Your task to perform on an android device: What's the latest video from GameXplain? Image 0: 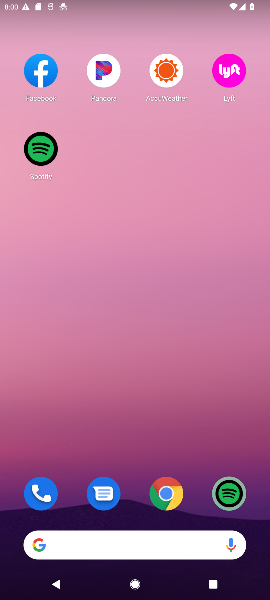
Step 0: drag from (131, 517) to (131, 68)
Your task to perform on an android device: What's the latest video from GameXplain? Image 1: 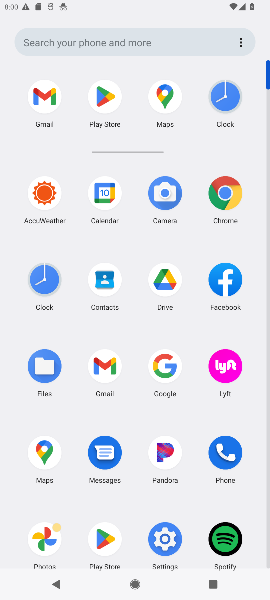
Step 1: click (109, 101)
Your task to perform on an android device: What's the latest video from GameXplain? Image 2: 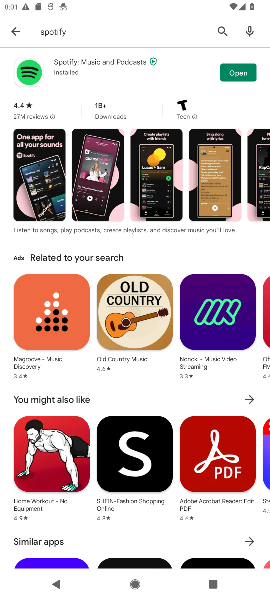
Step 2: press back button
Your task to perform on an android device: What's the latest video from GameXplain? Image 3: 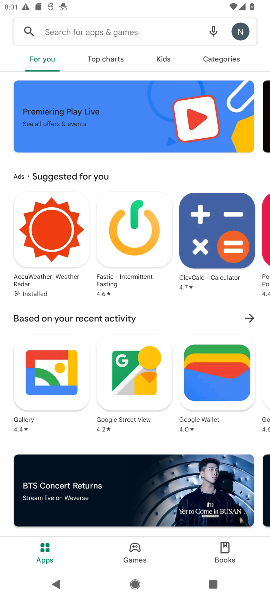
Step 3: press back button
Your task to perform on an android device: What's the latest video from GameXplain? Image 4: 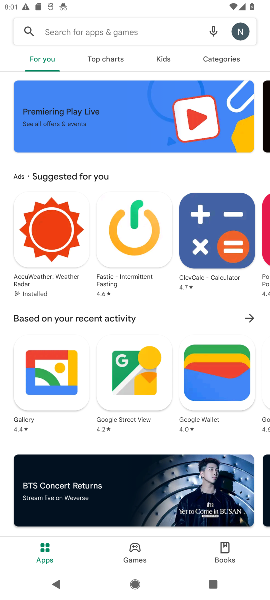
Step 4: press back button
Your task to perform on an android device: What's the latest video from GameXplain? Image 5: 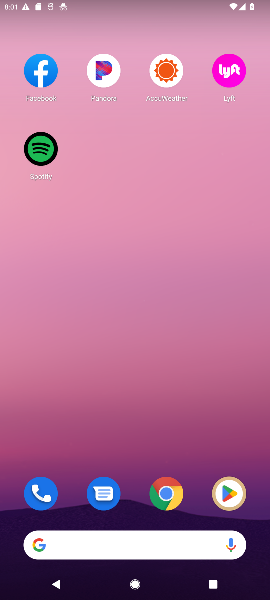
Step 5: click (78, 533)
Your task to perform on an android device: What's the latest video from GameXplain? Image 6: 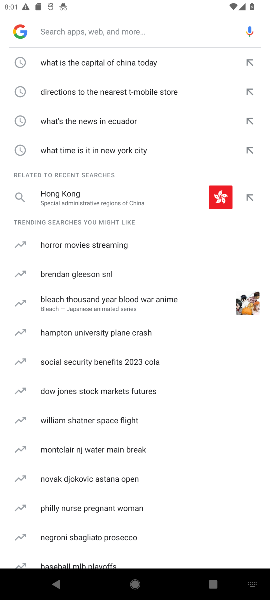
Step 6: type "What's the latest video from GameXplain?"
Your task to perform on an android device: What's the latest video from GameXplain? Image 7: 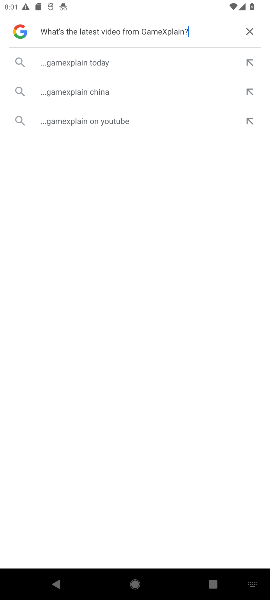
Step 7: click (81, 64)
Your task to perform on an android device: What's the latest video from GameXplain? Image 8: 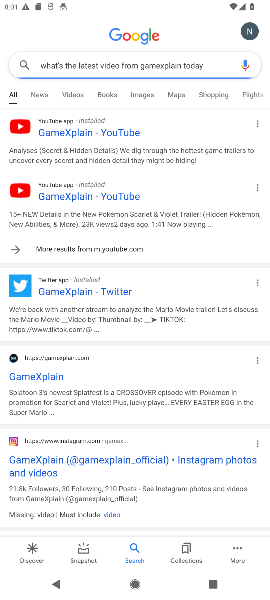
Step 8: click (47, 57)
Your task to perform on an android device: What's the latest video from GameXplain? Image 9: 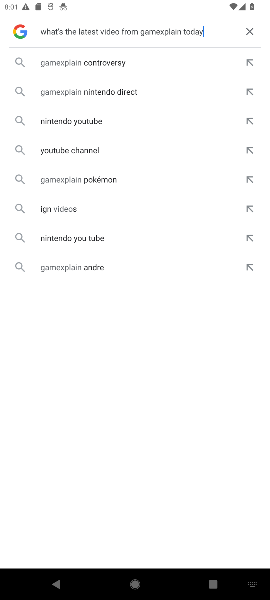
Step 9: press back button
Your task to perform on an android device: What's the latest video from GameXplain? Image 10: 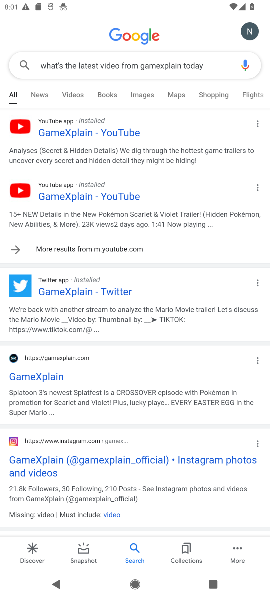
Step 10: click (254, 27)
Your task to perform on an android device: What's the latest video from GameXplain? Image 11: 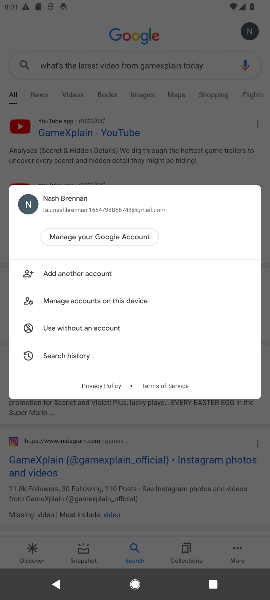
Step 11: click (248, 31)
Your task to perform on an android device: What's the latest video from GameXplain? Image 12: 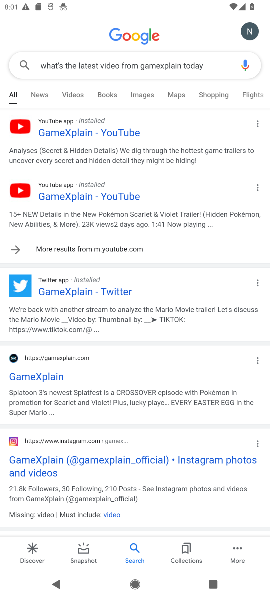
Step 12: task complete